Your task to perform on an android device: Go to CNN.com Image 0: 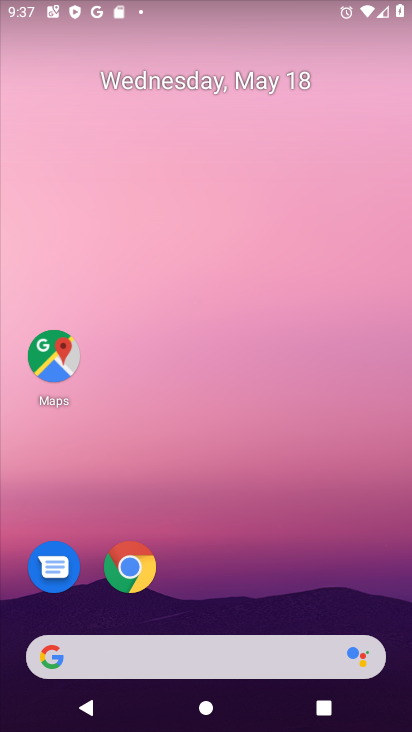
Step 0: click (141, 575)
Your task to perform on an android device: Go to CNN.com Image 1: 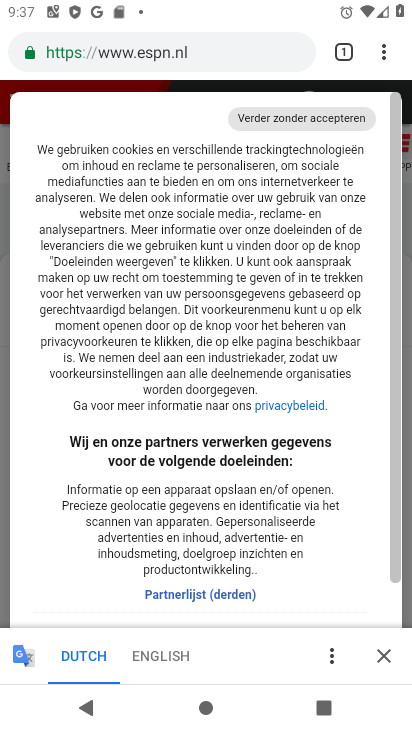
Step 1: click (173, 55)
Your task to perform on an android device: Go to CNN.com Image 2: 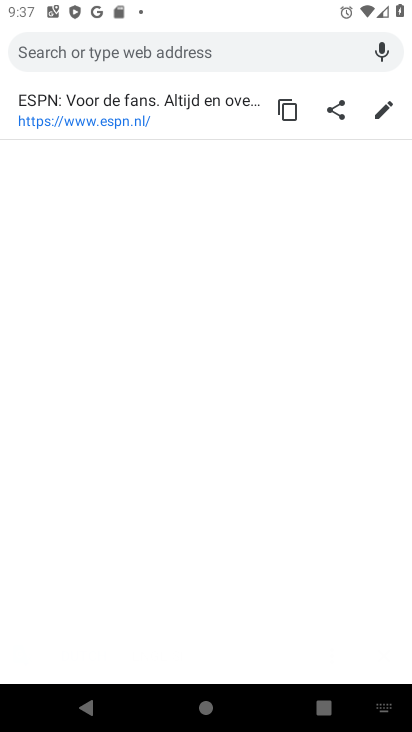
Step 2: type "cnn.com"
Your task to perform on an android device: Go to CNN.com Image 3: 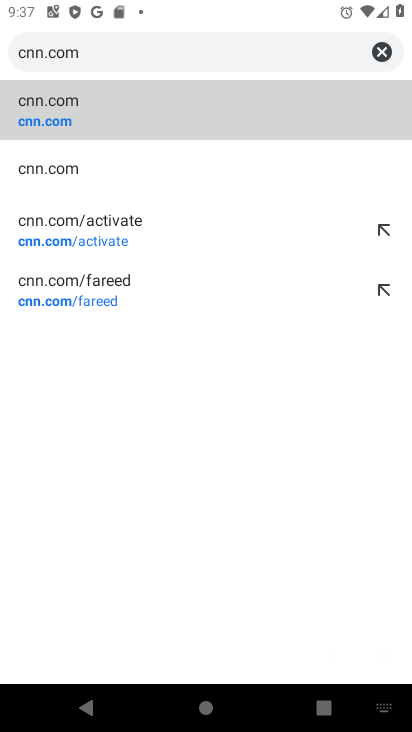
Step 3: click (121, 94)
Your task to perform on an android device: Go to CNN.com Image 4: 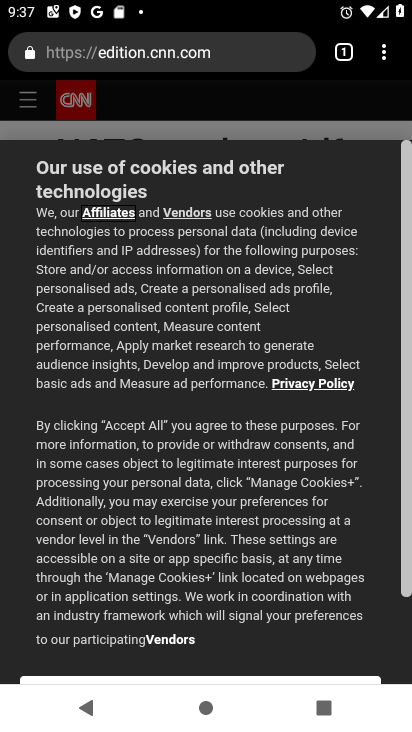
Step 4: task complete